Your task to perform on an android device: Open Android settings Image 0: 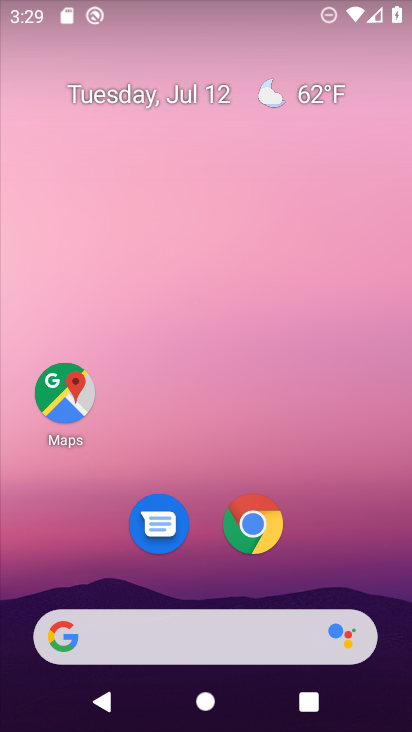
Step 0: drag from (358, 571) to (332, 80)
Your task to perform on an android device: Open Android settings Image 1: 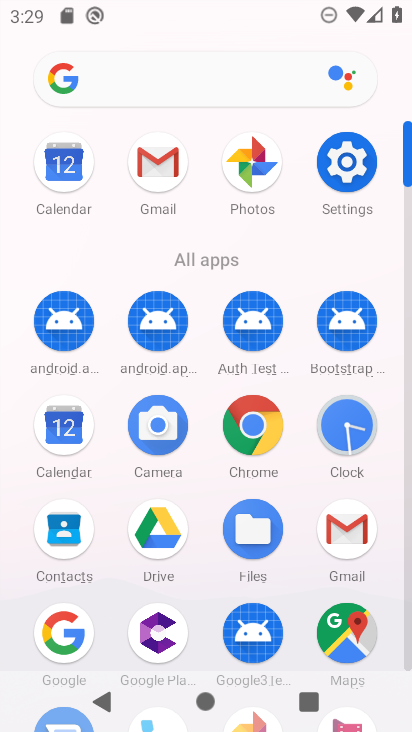
Step 1: click (351, 168)
Your task to perform on an android device: Open Android settings Image 2: 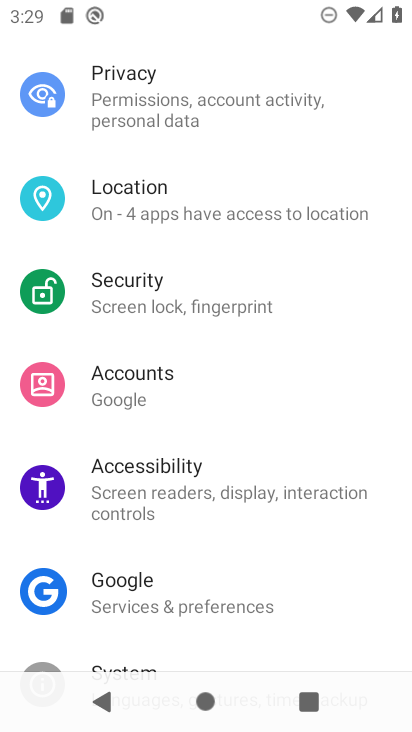
Step 2: drag from (219, 529) to (252, 131)
Your task to perform on an android device: Open Android settings Image 3: 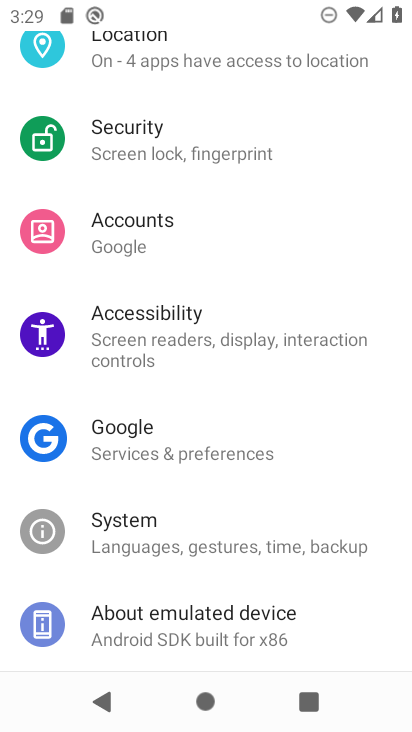
Step 3: click (237, 632)
Your task to perform on an android device: Open Android settings Image 4: 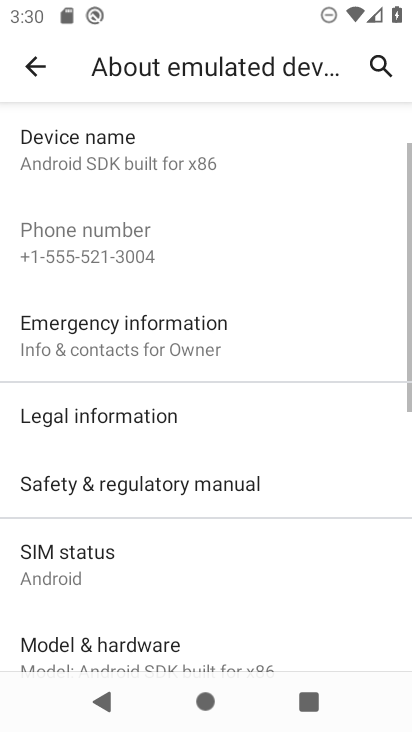
Step 4: task complete